Your task to perform on an android device: Open Google Maps Image 0: 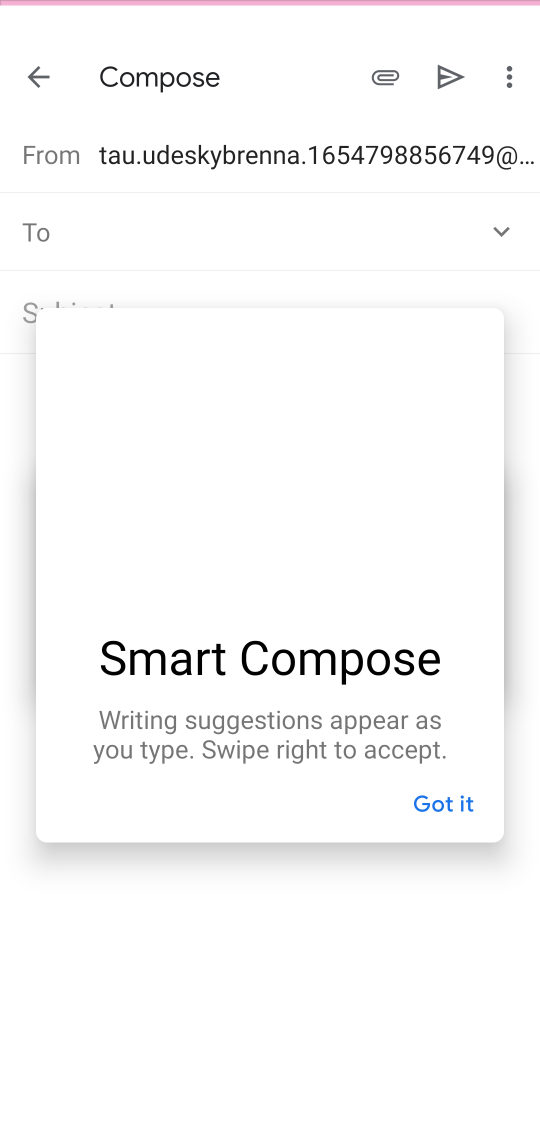
Step 0: press home button
Your task to perform on an android device: Open Google Maps Image 1: 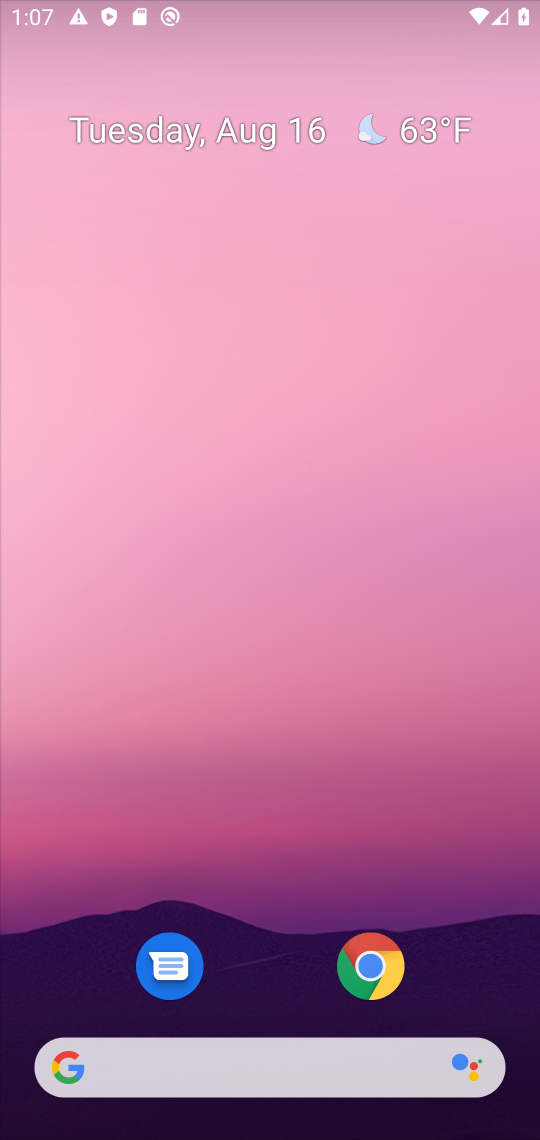
Step 1: press home button
Your task to perform on an android device: Open Google Maps Image 2: 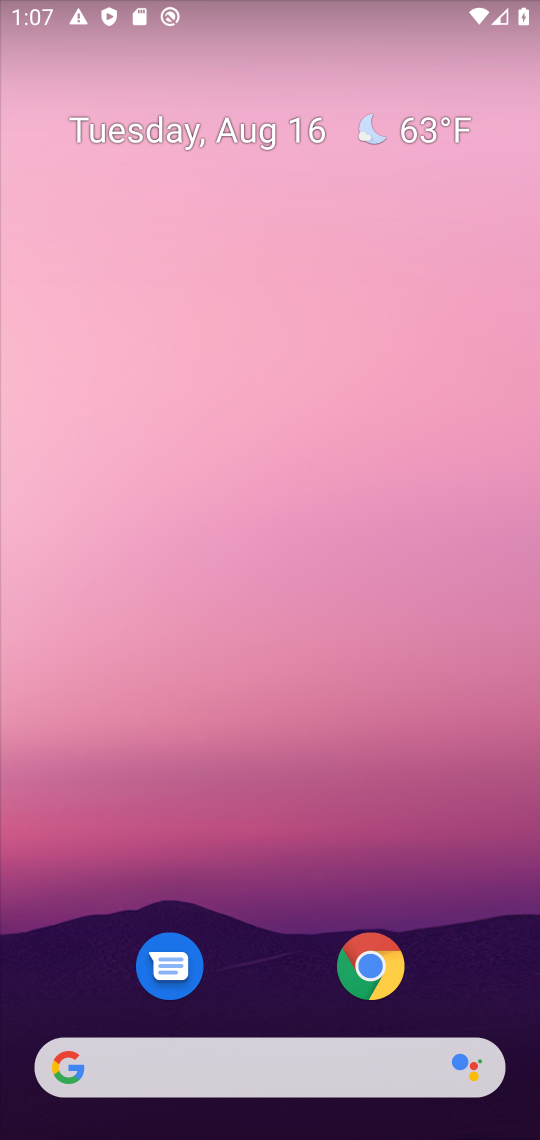
Step 2: drag from (253, 971) to (112, 172)
Your task to perform on an android device: Open Google Maps Image 3: 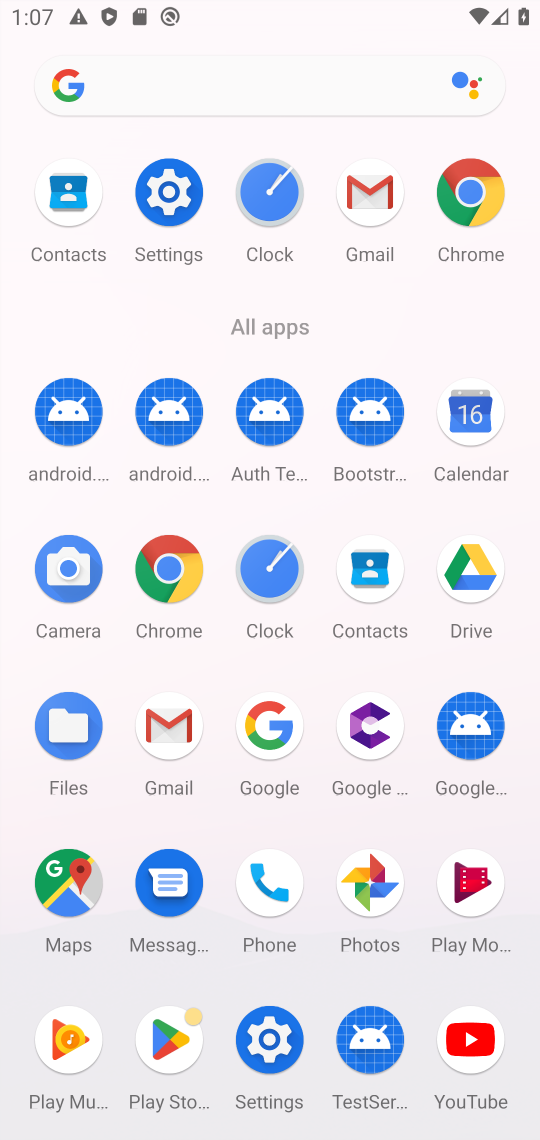
Step 3: click (73, 879)
Your task to perform on an android device: Open Google Maps Image 4: 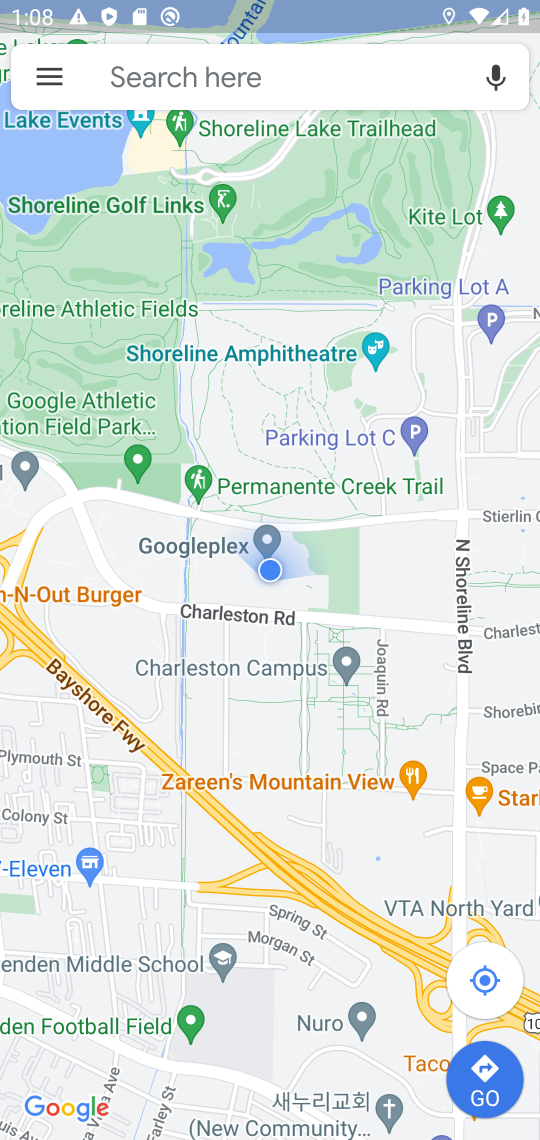
Step 4: task complete